Your task to perform on an android device: show emergency info Image 0: 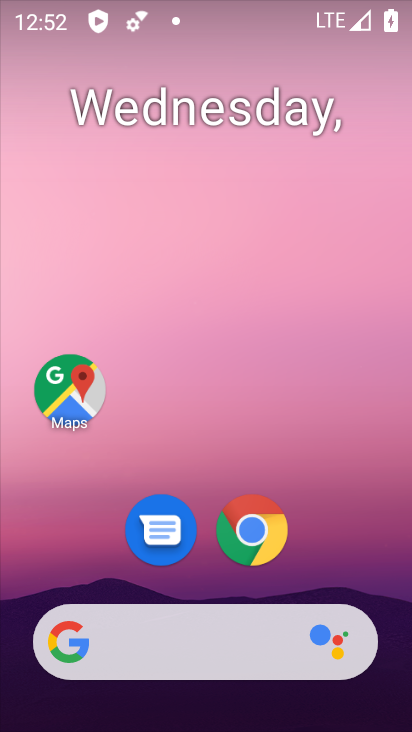
Step 0: drag from (393, 559) to (348, 93)
Your task to perform on an android device: show emergency info Image 1: 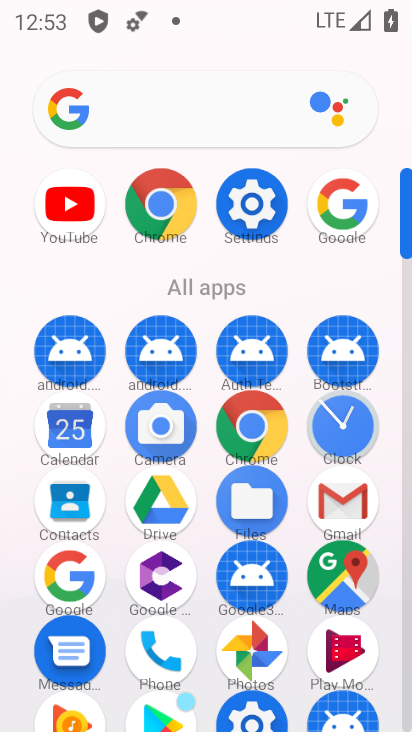
Step 1: click (269, 221)
Your task to perform on an android device: show emergency info Image 2: 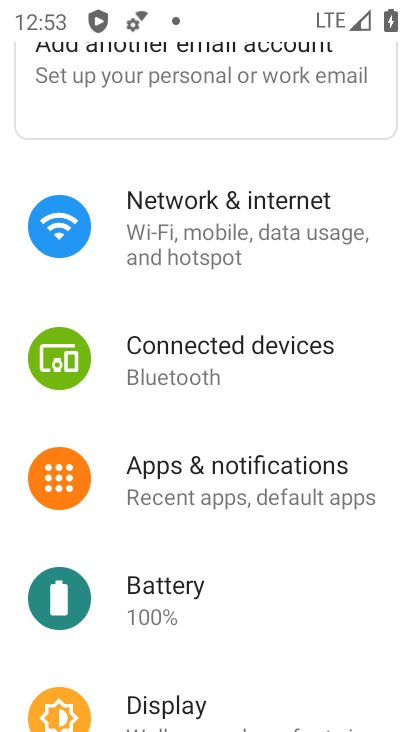
Step 2: drag from (250, 599) to (239, 258)
Your task to perform on an android device: show emergency info Image 3: 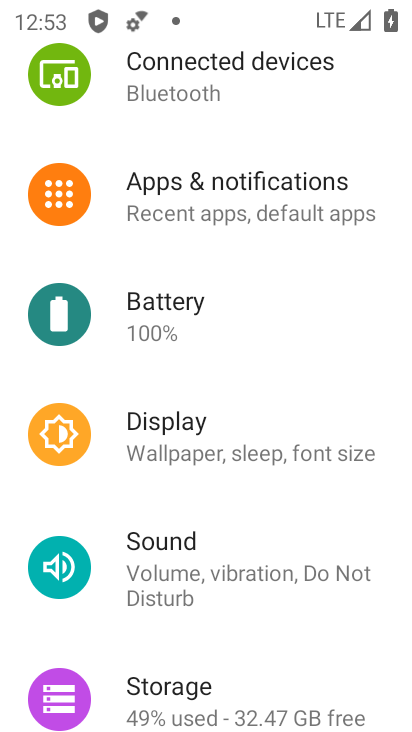
Step 3: drag from (276, 597) to (268, 185)
Your task to perform on an android device: show emergency info Image 4: 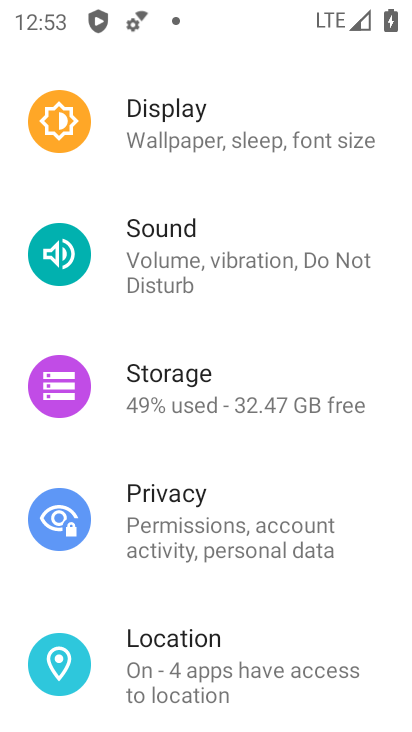
Step 4: drag from (306, 671) to (219, 239)
Your task to perform on an android device: show emergency info Image 5: 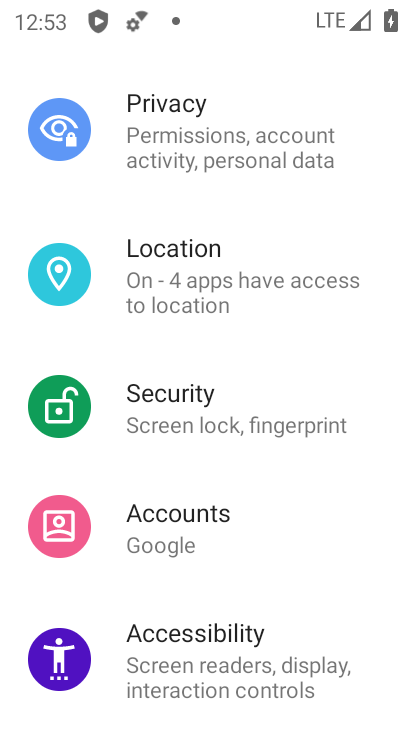
Step 5: drag from (274, 654) to (287, 170)
Your task to perform on an android device: show emergency info Image 6: 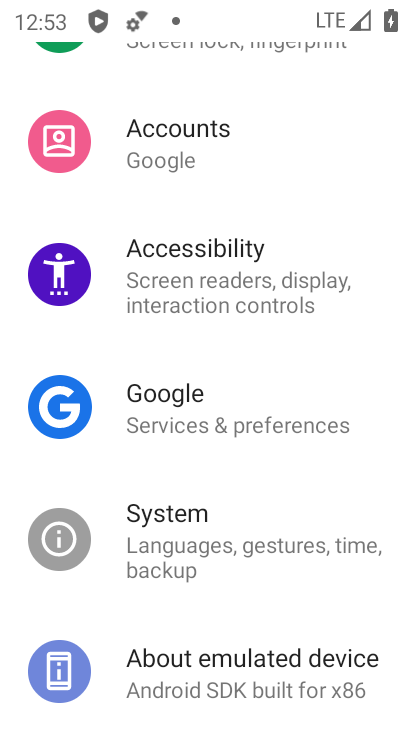
Step 6: drag from (263, 681) to (256, 138)
Your task to perform on an android device: show emergency info Image 7: 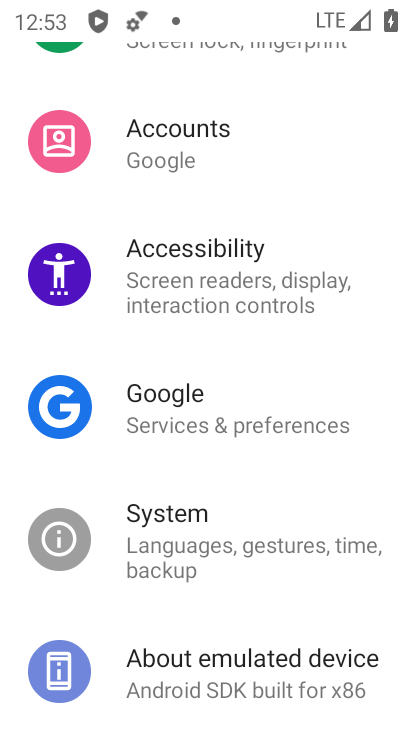
Step 7: click (332, 663)
Your task to perform on an android device: show emergency info Image 8: 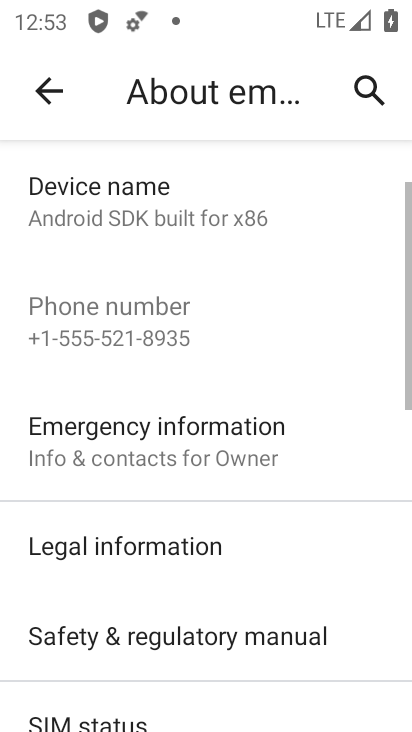
Step 8: click (248, 440)
Your task to perform on an android device: show emergency info Image 9: 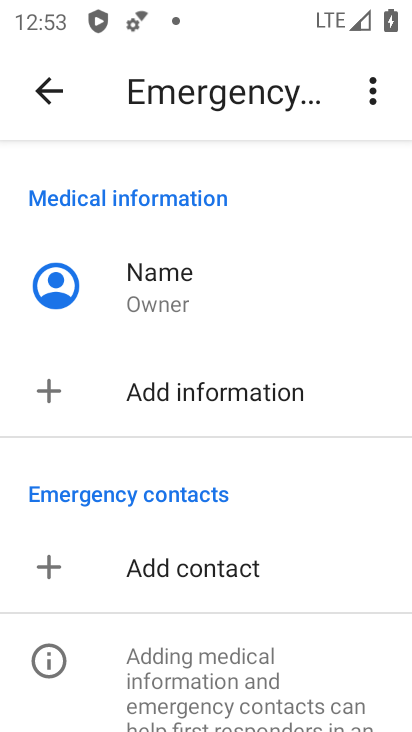
Step 9: task complete